Your task to perform on an android device: remove spam from my inbox in the gmail app Image 0: 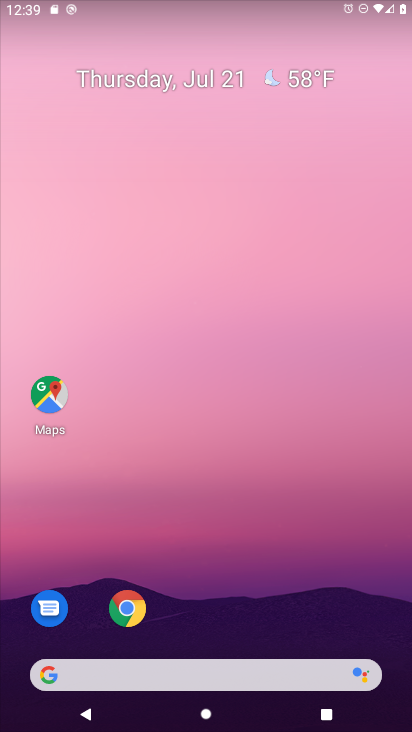
Step 0: press home button
Your task to perform on an android device: remove spam from my inbox in the gmail app Image 1: 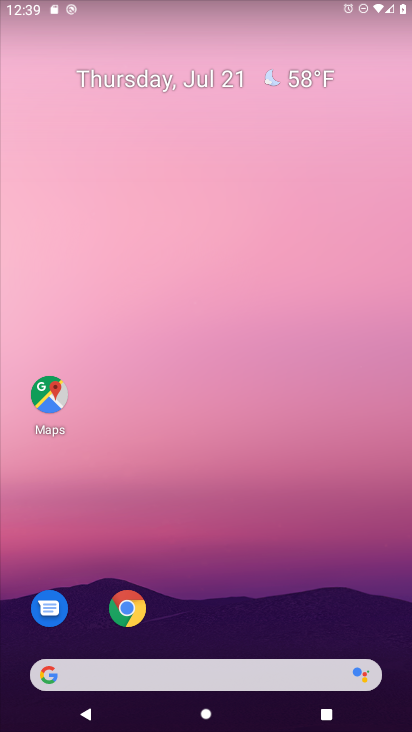
Step 1: drag from (245, 632) to (296, 75)
Your task to perform on an android device: remove spam from my inbox in the gmail app Image 2: 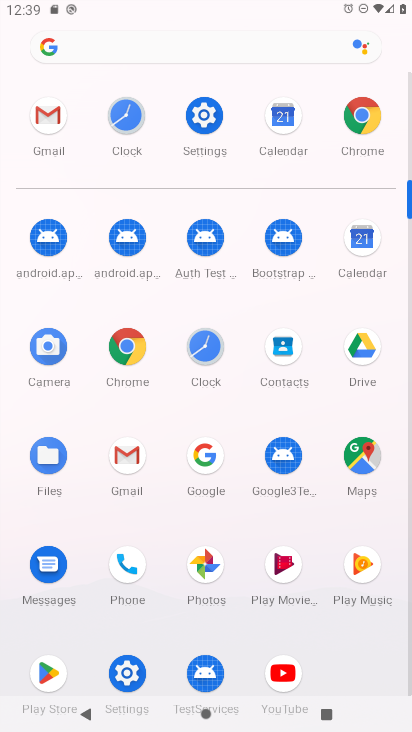
Step 2: click (45, 119)
Your task to perform on an android device: remove spam from my inbox in the gmail app Image 3: 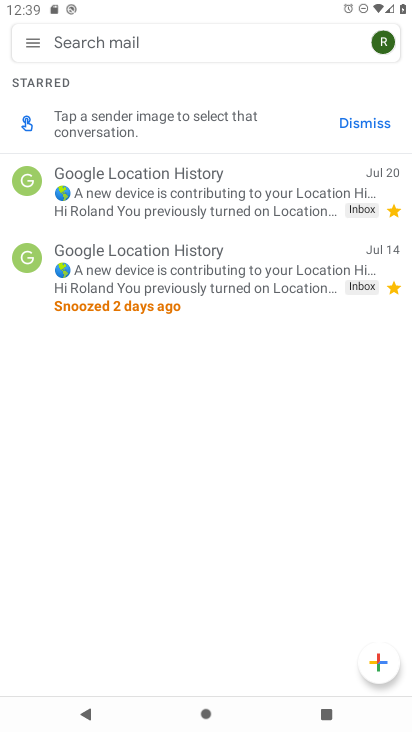
Step 3: click (35, 47)
Your task to perform on an android device: remove spam from my inbox in the gmail app Image 4: 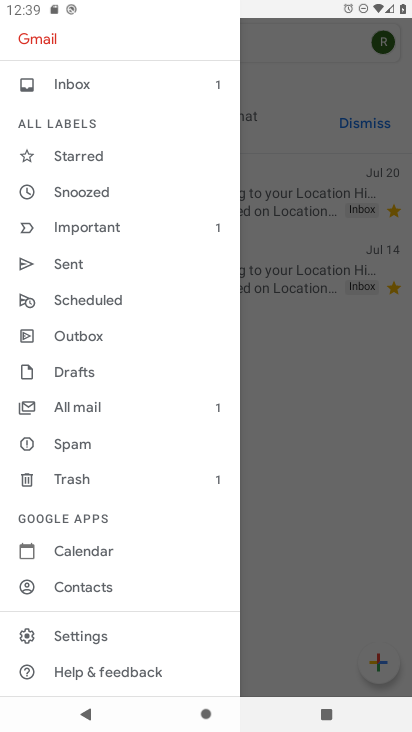
Step 4: click (65, 445)
Your task to perform on an android device: remove spam from my inbox in the gmail app Image 5: 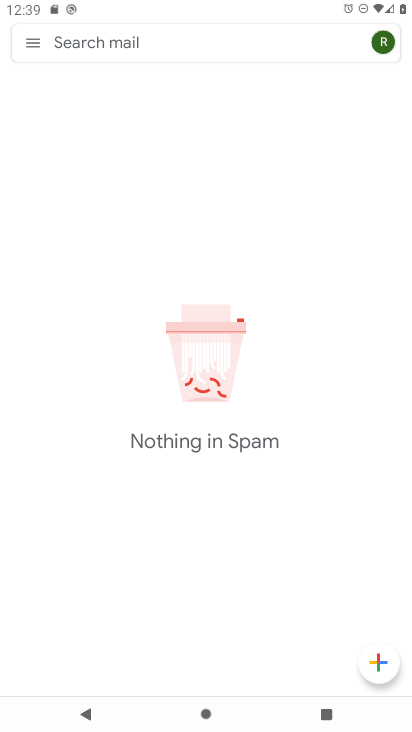
Step 5: task complete